Your task to perform on an android device: toggle airplane mode Image 0: 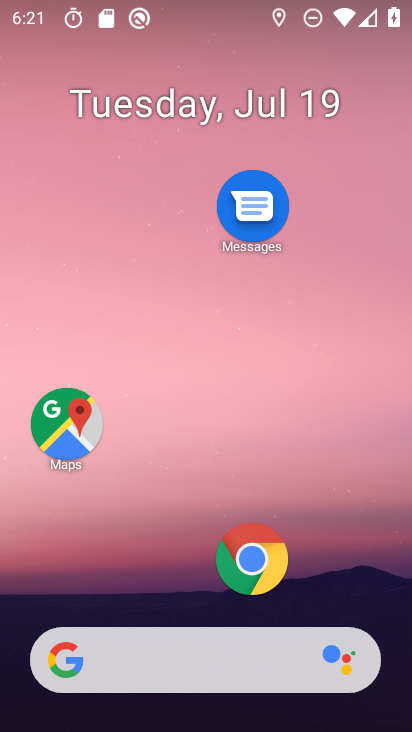
Step 0: drag from (326, 15) to (181, 593)
Your task to perform on an android device: toggle airplane mode Image 1: 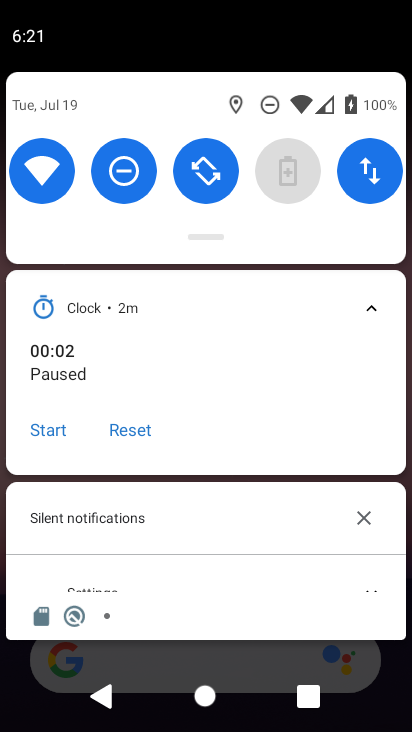
Step 1: drag from (202, 232) to (167, 626)
Your task to perform on an android device: toggle airplane mode Image 2: 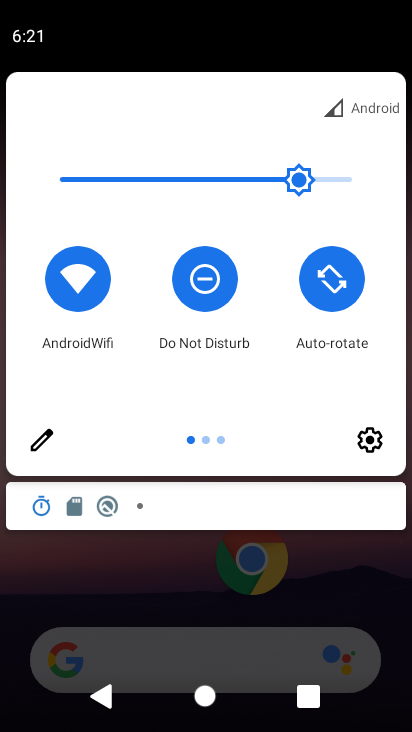
Step 2: drag from (353, 277) to (36, 282)
Your task to perform on an android device: toggle airplane mode Image 3: 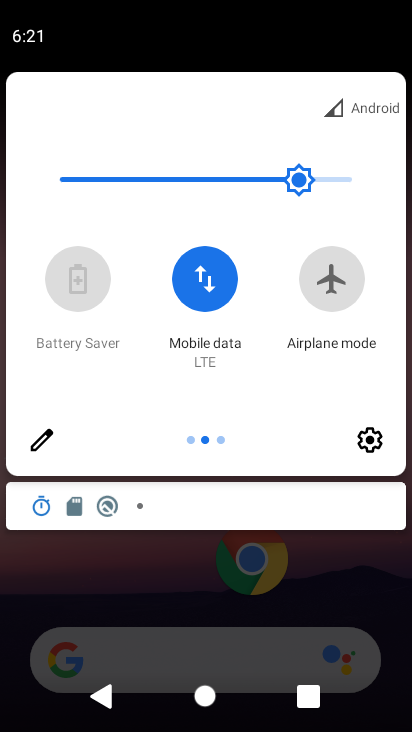
Step 3: click (328, 270)
Your task to perform on an android device: toggle airplane mode Image 4: 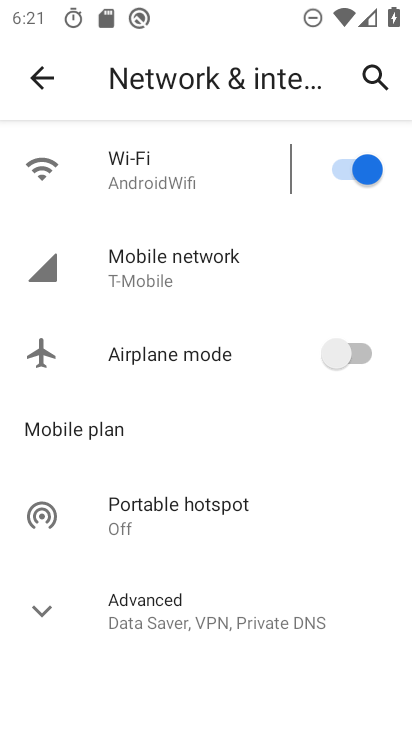
Step 4: drag from (317, 1) to (296, 593)
Your task to perform on an android device: toggle airplane mode Image 5: 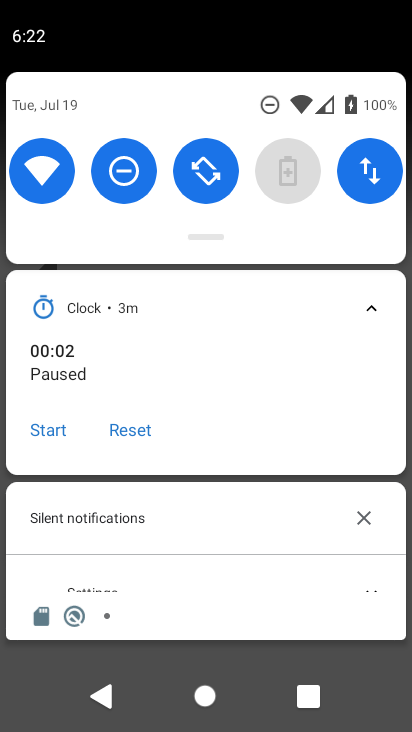
Step 5: drag from (233, 662) to (293, 24)
Your task to perform on an android device: toggle airplane mode Image 6: 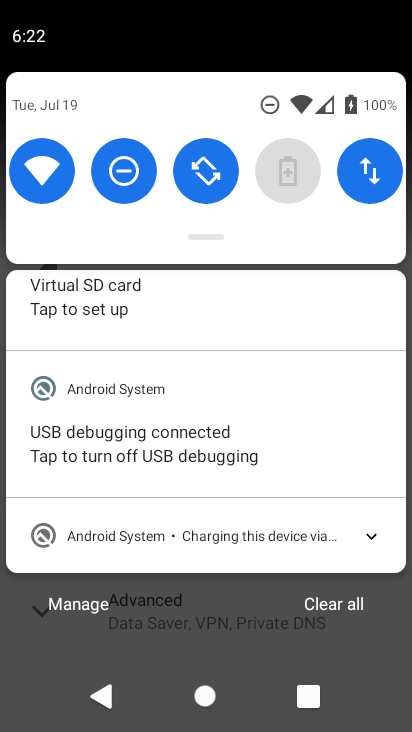
Step 6: drag from (222, 586) to (281, 53)
Your task to perform on an android device: toggle airplane mode Image 7: 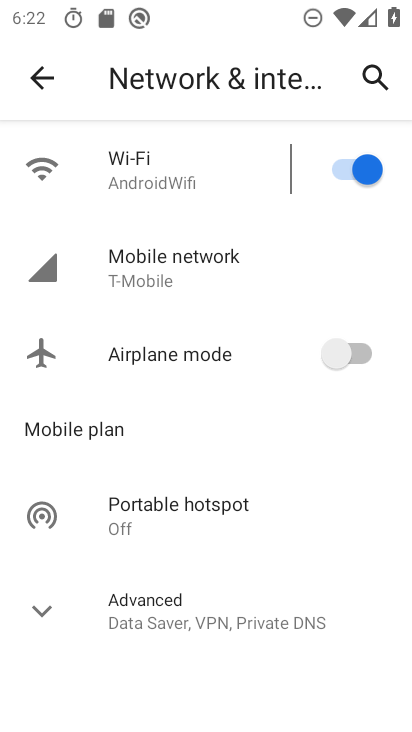
Step 7: click (347, 352)
Your task to perform on an android device: toggle airplane mode Image 8: 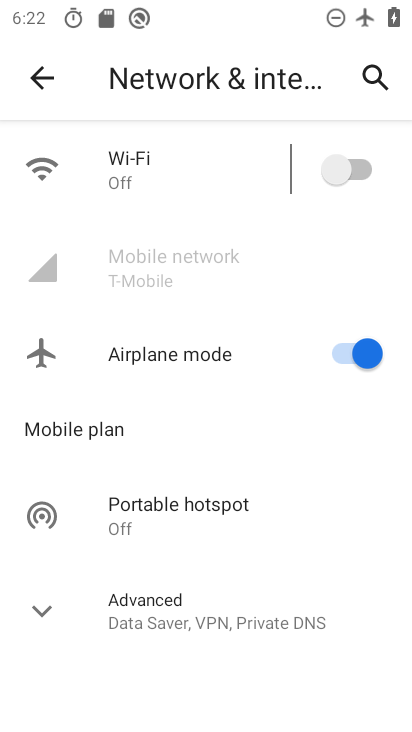
Step 8: task complete